Your task to perform on an android device: Find coffee shops on Maps Image 0: 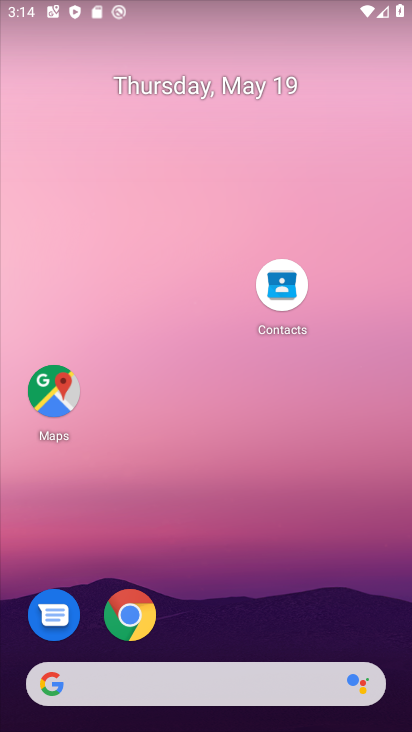
Step 0: drag from (265, 503) to (304, 172)
Your task to perform on an android device: Find coffee shops on Maps Image 1: 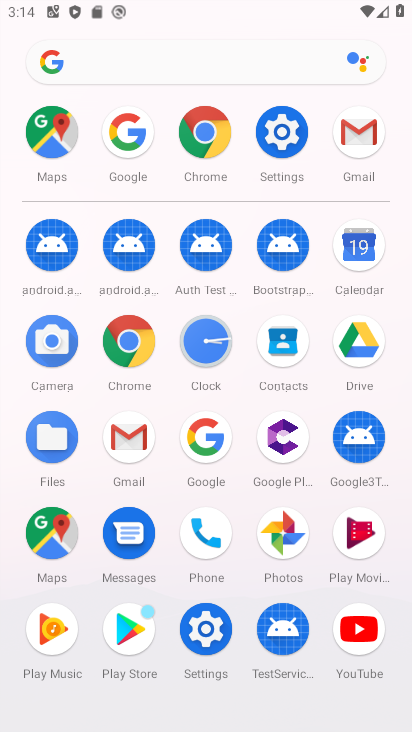
Step 1: click (59, 546)
Your task to perform on an android device: Find coffee shops on Maps Image 2: 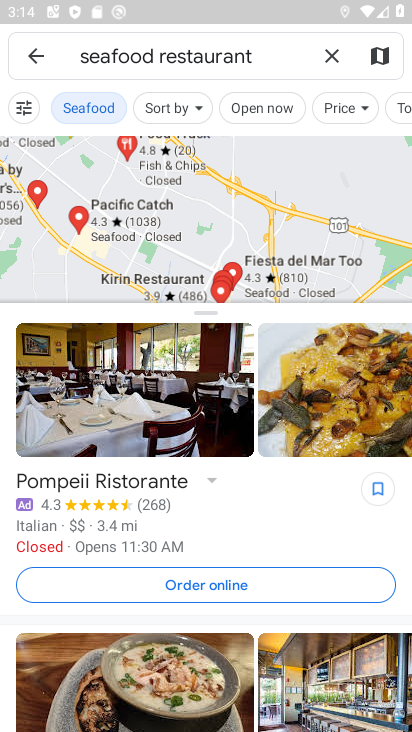
Step 2: click (336, 52)
Your task to perform on an android device: Find coffee shops on Maps Image 3: 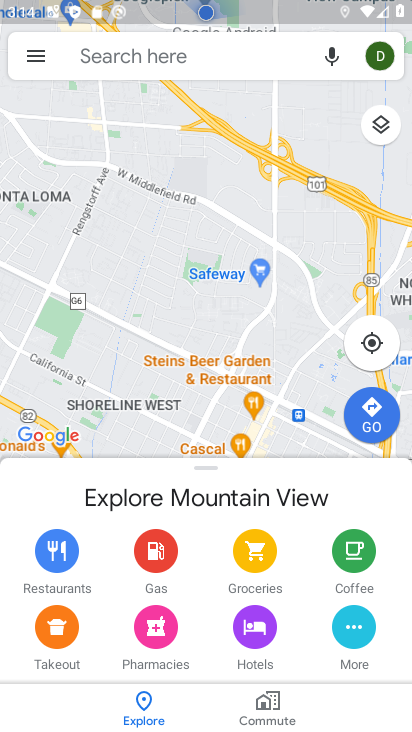
Step 3: click (211, 60)
Your task to perform on an android device: Find coffee shops on Maps Image 4: 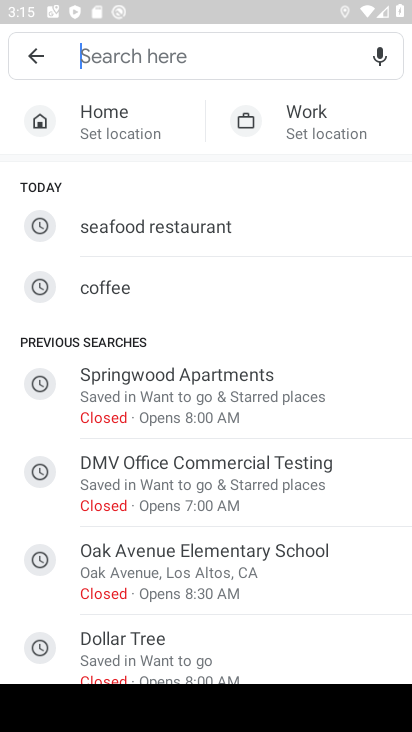
Step 4: type "coffee shops"
Your task to perform on an android device: Find coffee shops on Maps Image 5: 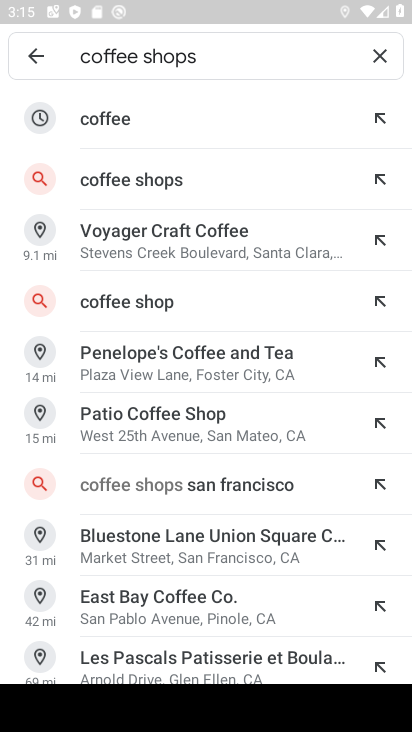
Step 5: click (203, 190)
Your task to perform on an android device: Find coffee shops on Maps Image 6: 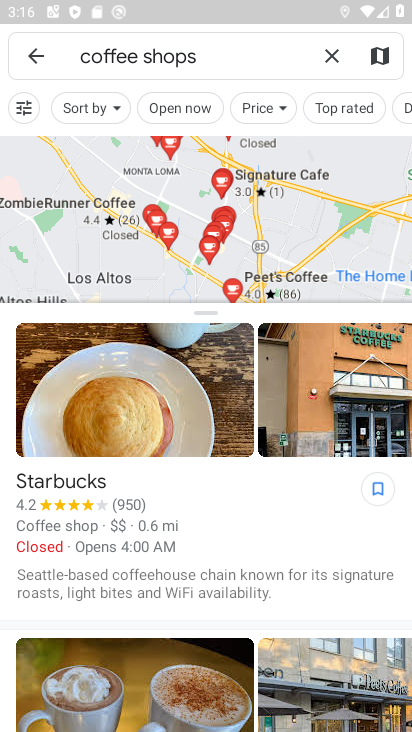
Step 6: task complete